Your task to perform on an android device: Open Google Maps Image 0: 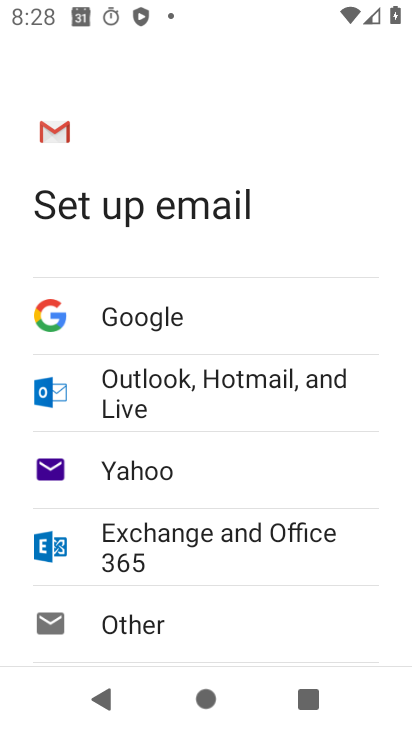
Step 0: press home button
Your task to perform on an android device: Open Google Maps Image 1: 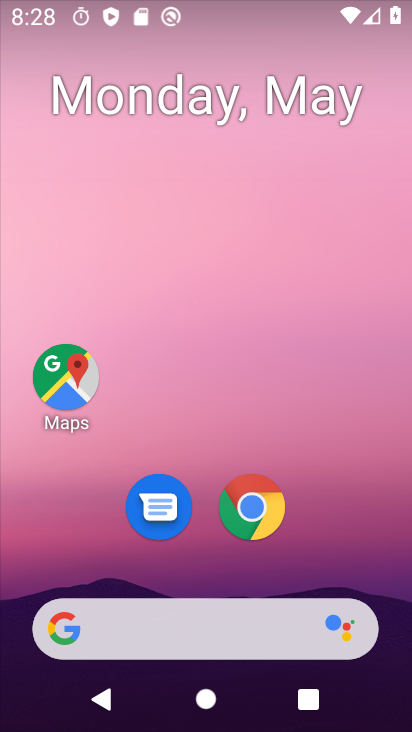
Step 1: click (75, 385)
Your task to perform on an android device: Open Google Maps Image 2: 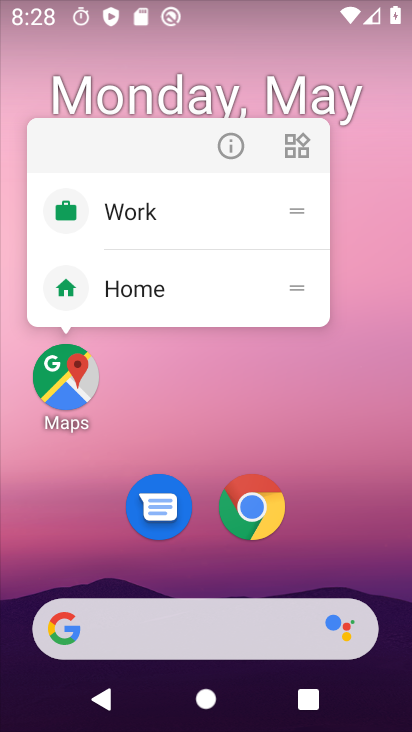
Step 2: click (73, 383)
Your task to perform on an android device: Open Google Maps Image 3: 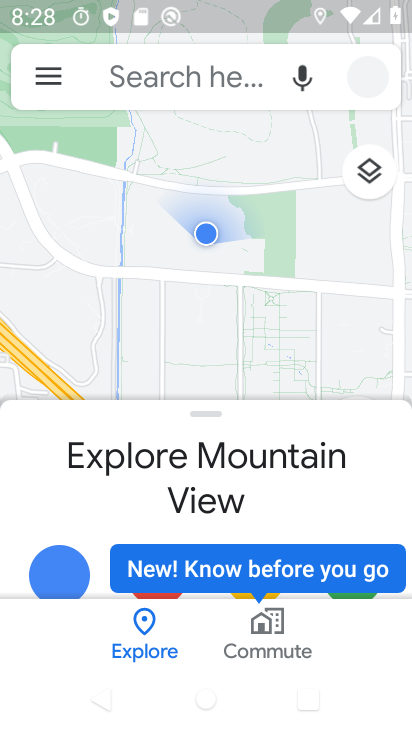
Step 3: task complete